Your task to perform on an android device: Add macbook to the cart on amazon, then select checkout. Image 0: 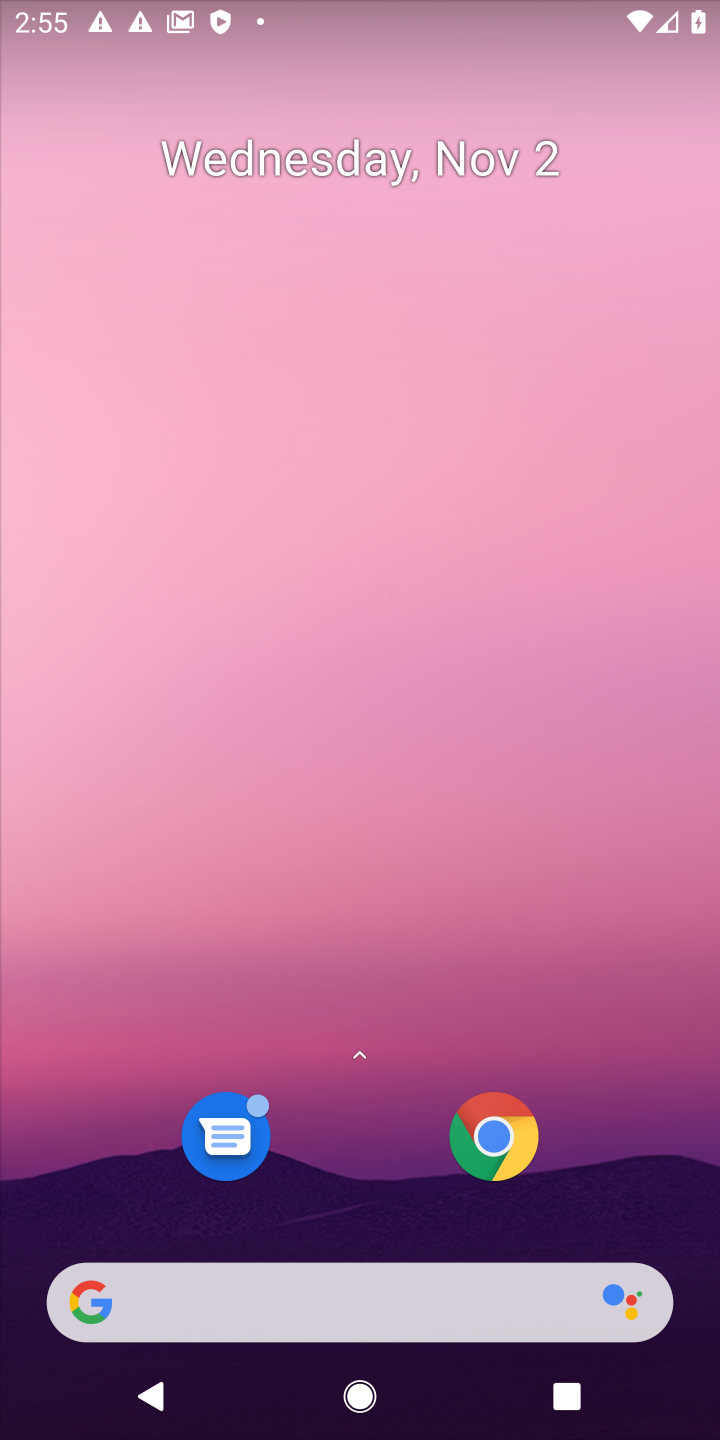
Step 0: press home button
Your task to perform on an android device: Add macbook to the cart on amazon, then select checkout. Image 1: 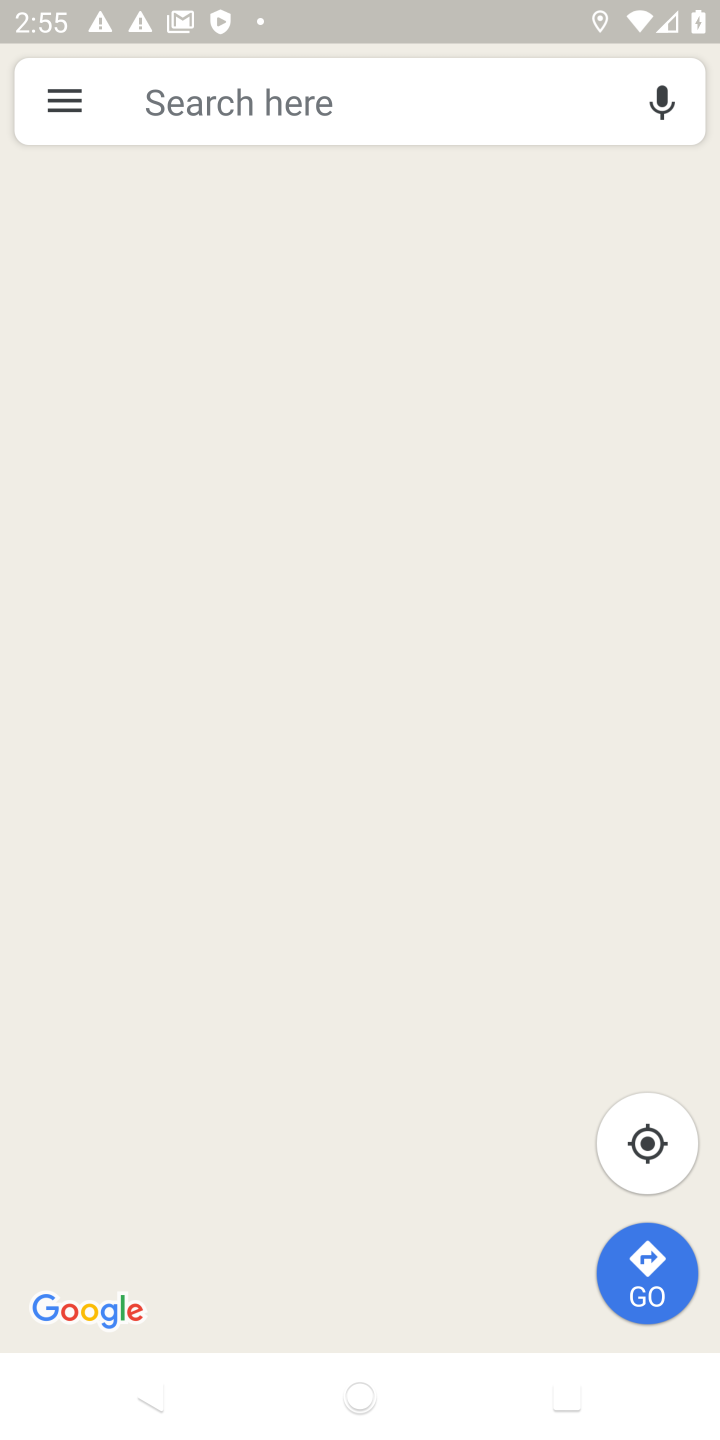
Step 1: click (434, 183)
Your task to perform on an android device: Add macbook to the cart on amazon, then select checkout. Image 2: 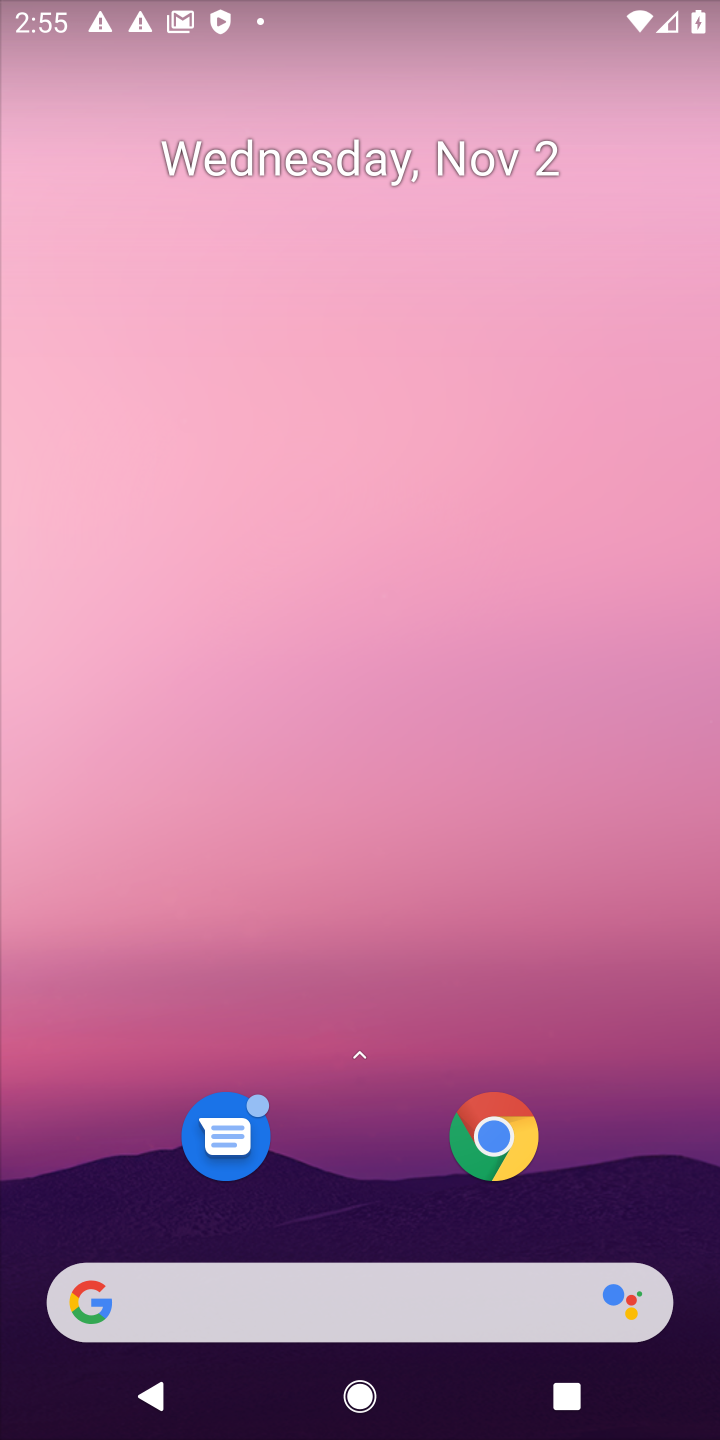
Step 2: drag from (336, 1169) to (477, 134)
Your task to perform on an android device: Add macbook to the cart on amazon, then select checkout. Image 3: 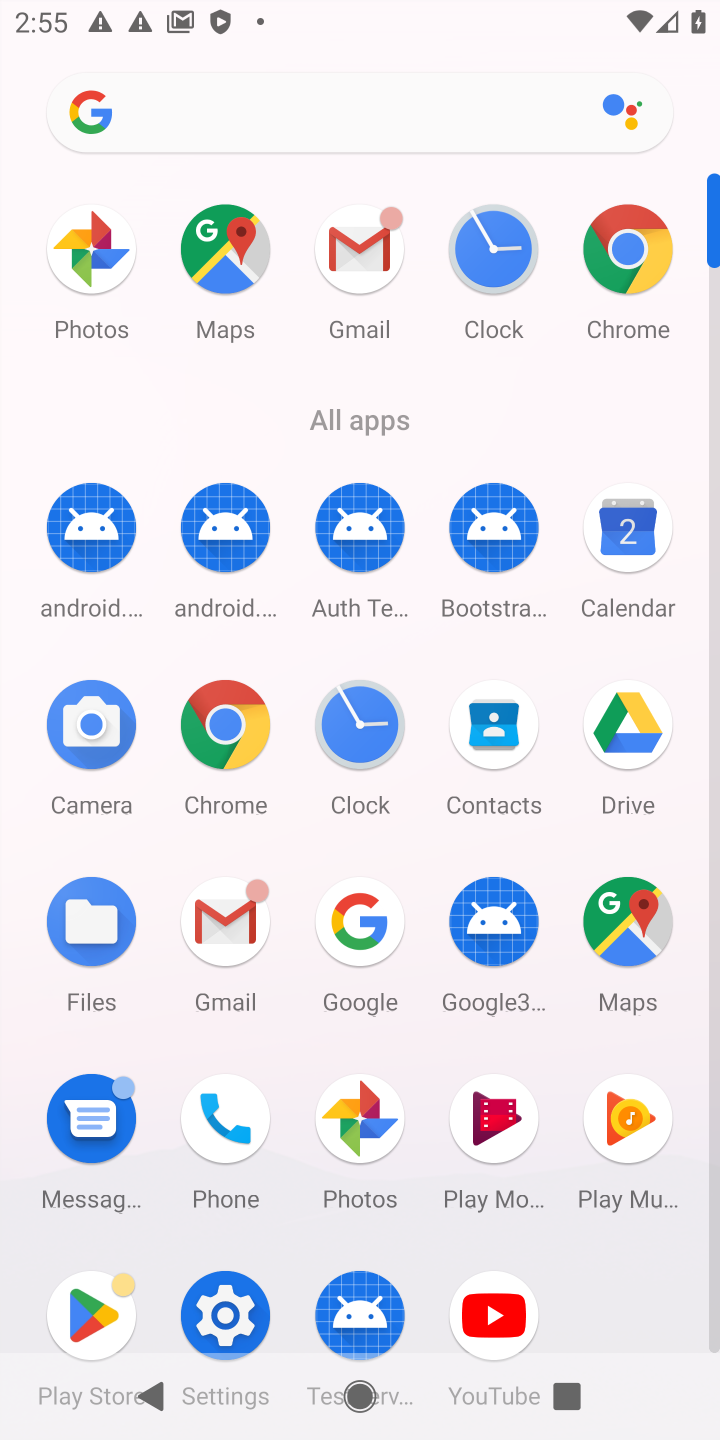
Step 3: click (219, 732)
Your task to perform on an android device: Add macbook to the cart on amazon, then select checkout. Image 4: 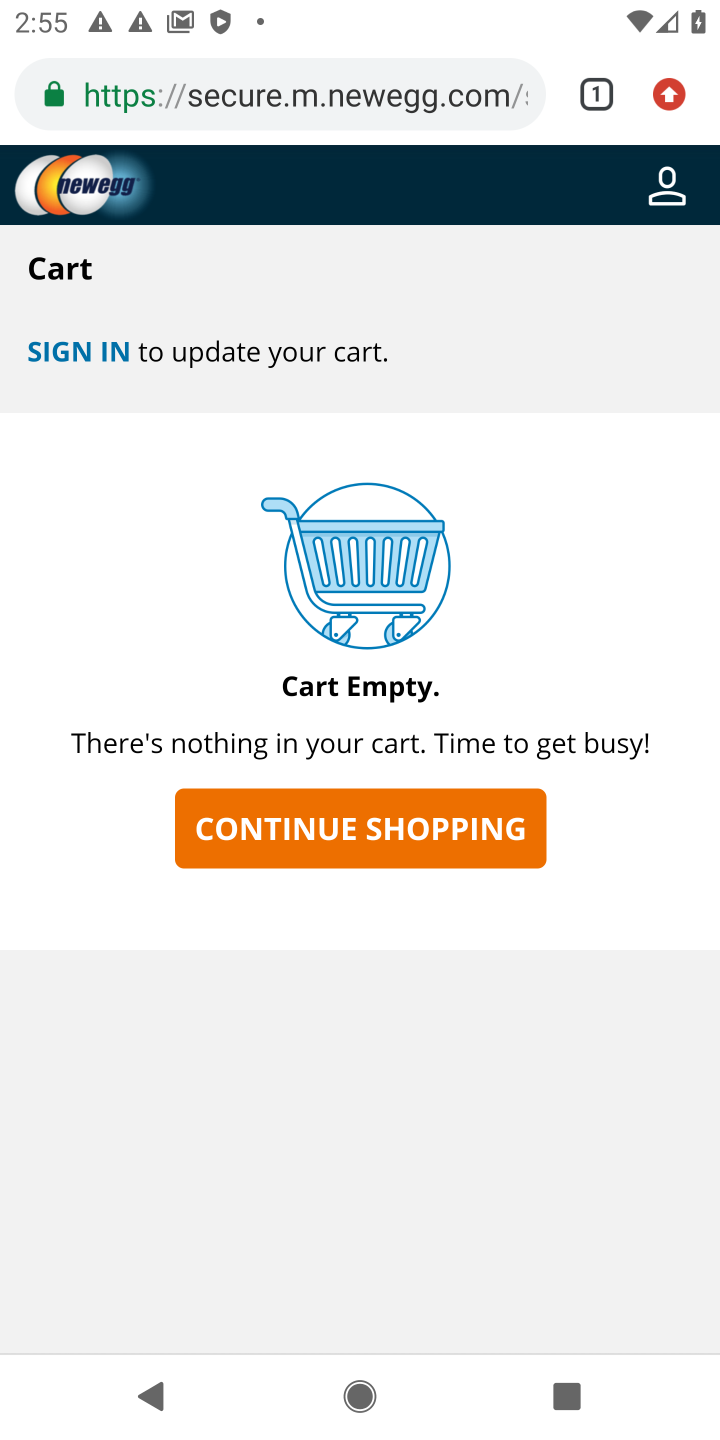
Step 4: click (390, 80)
Your task to perform on an android device: Add macbook to the cart on amazon, then select checkout. Image 5: 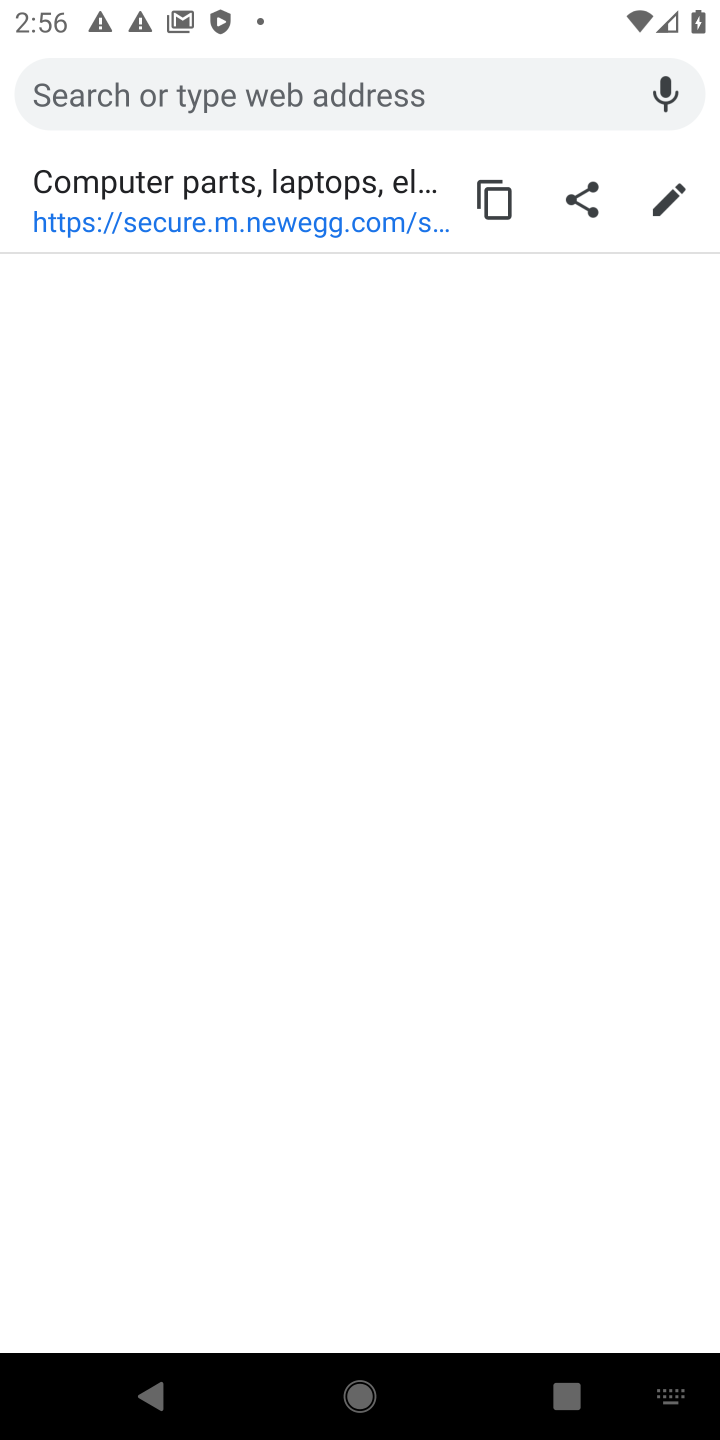
Step 5: type "amazon.com"
Your task to perform on an android device: Add macbook to the cart on amazon, then select checkout. Image 6: 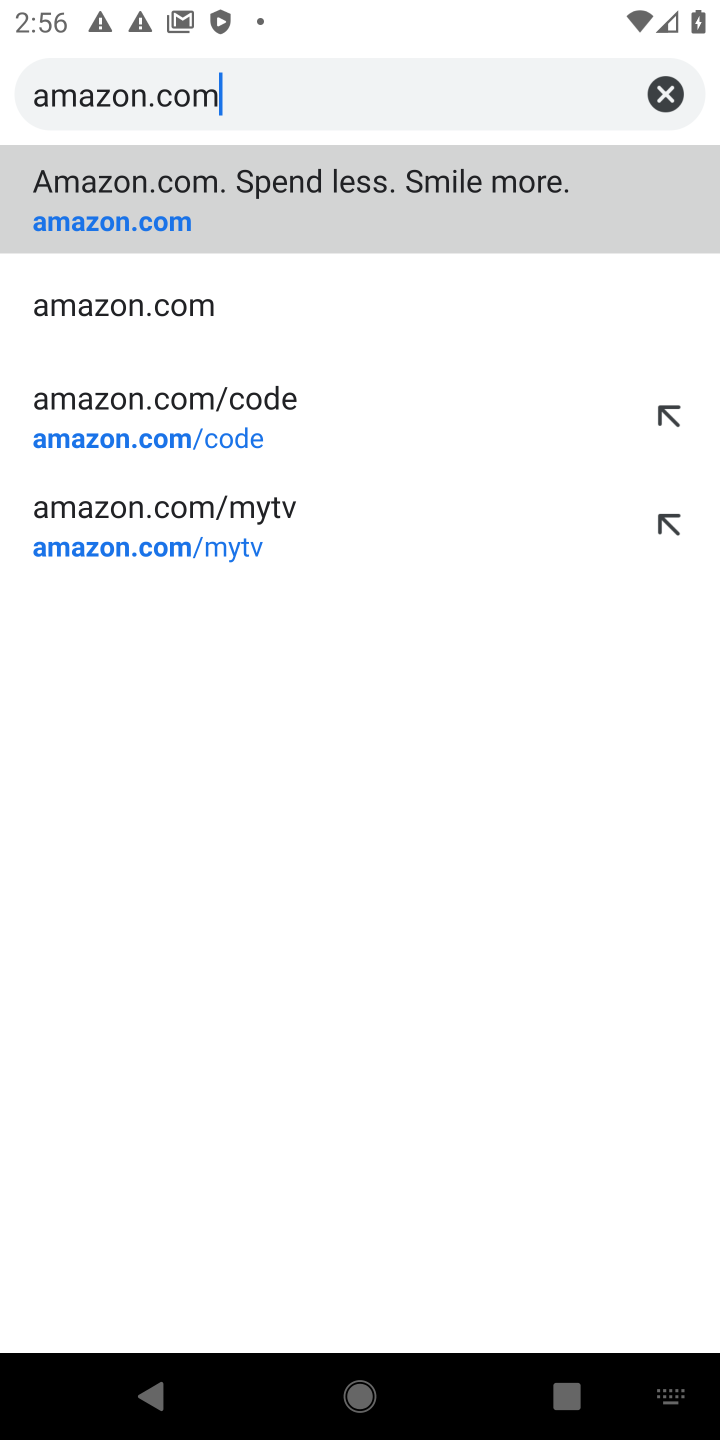
Step 6: press enter
Your task to perform on an android device: Add macbook to the cart on amazon, then select checkout. Image 7: 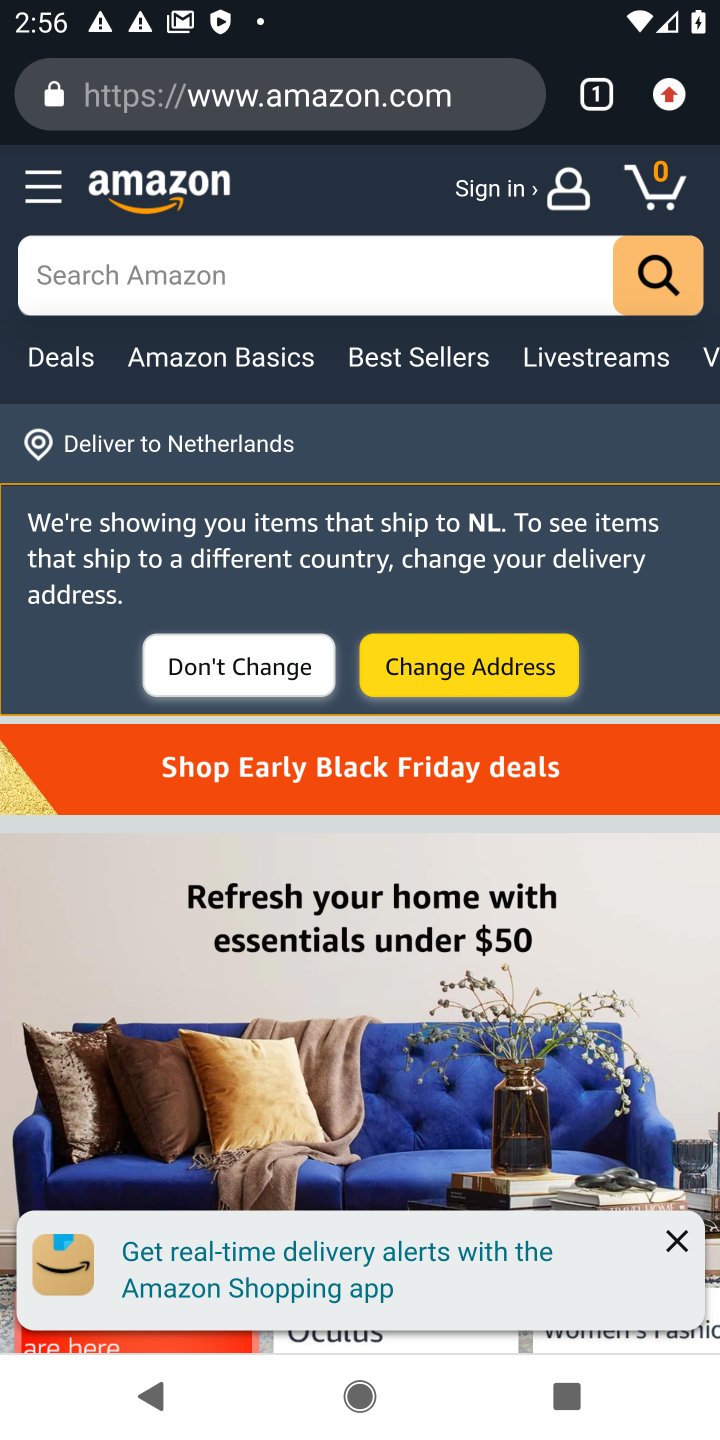
Step 7: click (301, 297)
Your task to perform on an android device: Add macbook to the cart on amazon, then select checkout. Image 8: 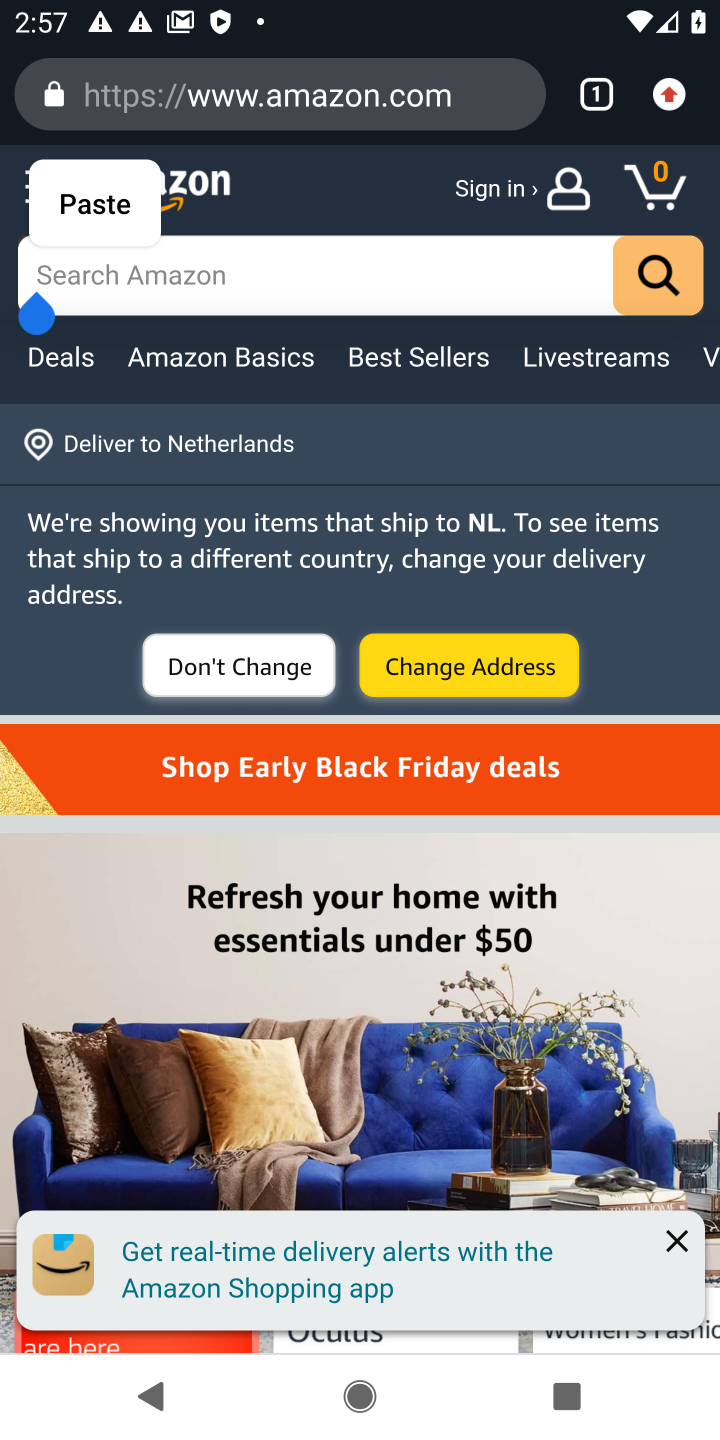
Step 8: type "macbook"
Your task to perform on an android device: Add macbook to the cart on amazon, then select checkout. Image 9: 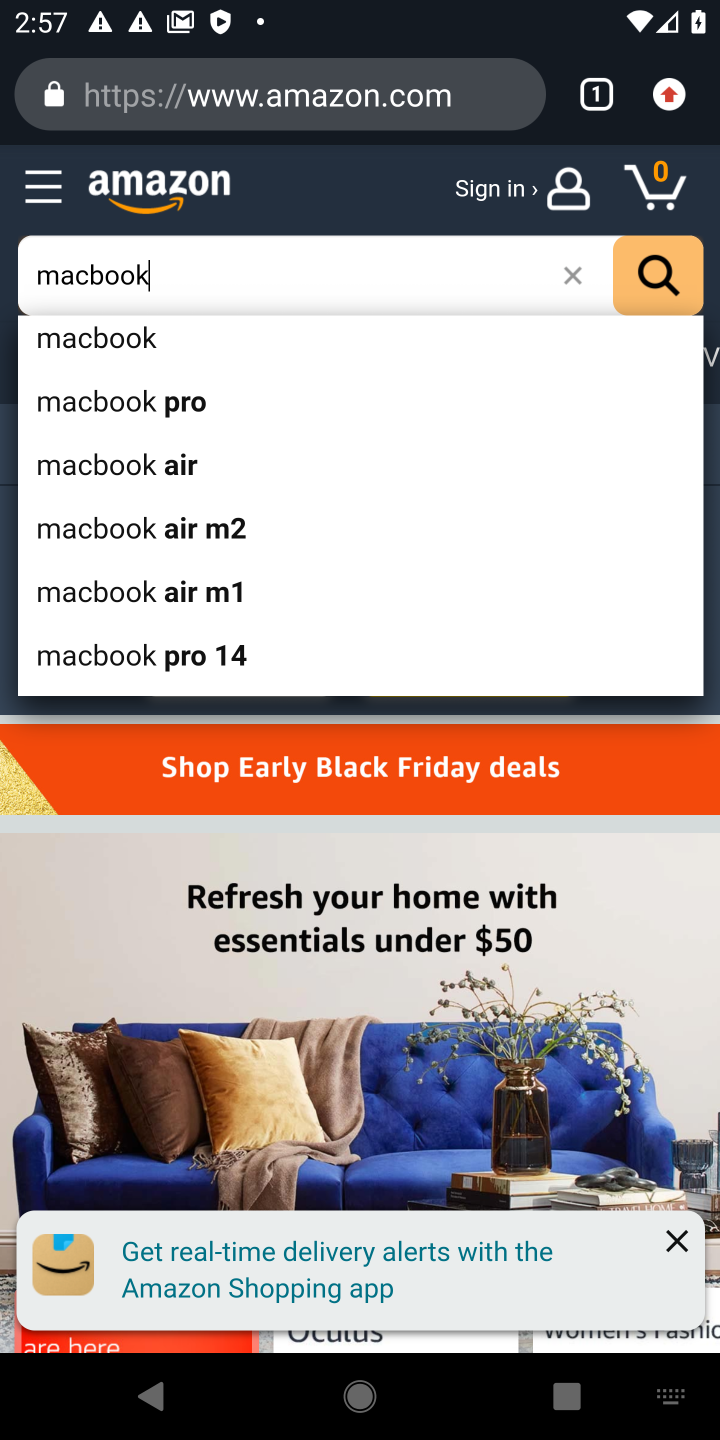
Step 9: click (682, 265)
Your task to perform on an android device: Add macbook to the cart on amazon, then select checkout. Image 10: 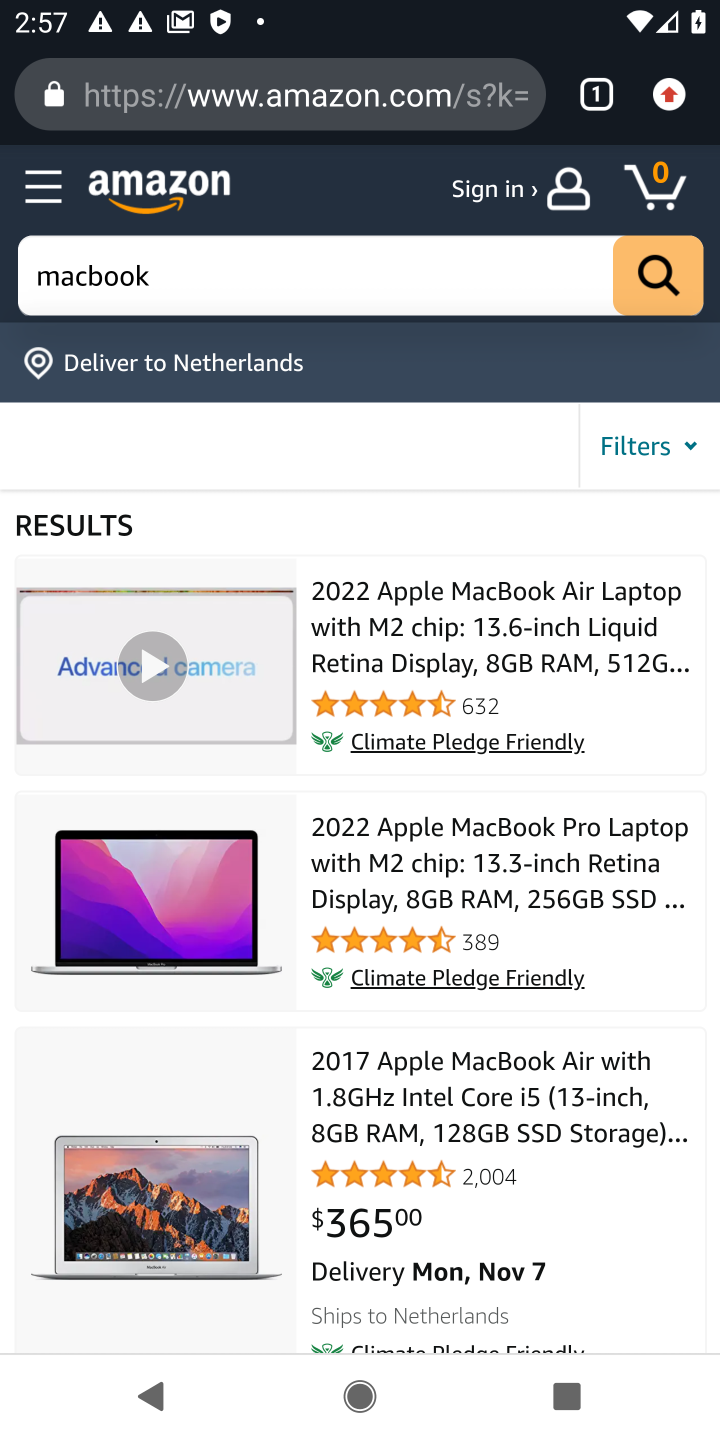
Step 10: click (433, 647)
Your task to perform on an android device: Add macbook to the cart on amazon, then select checkout. Image 11: 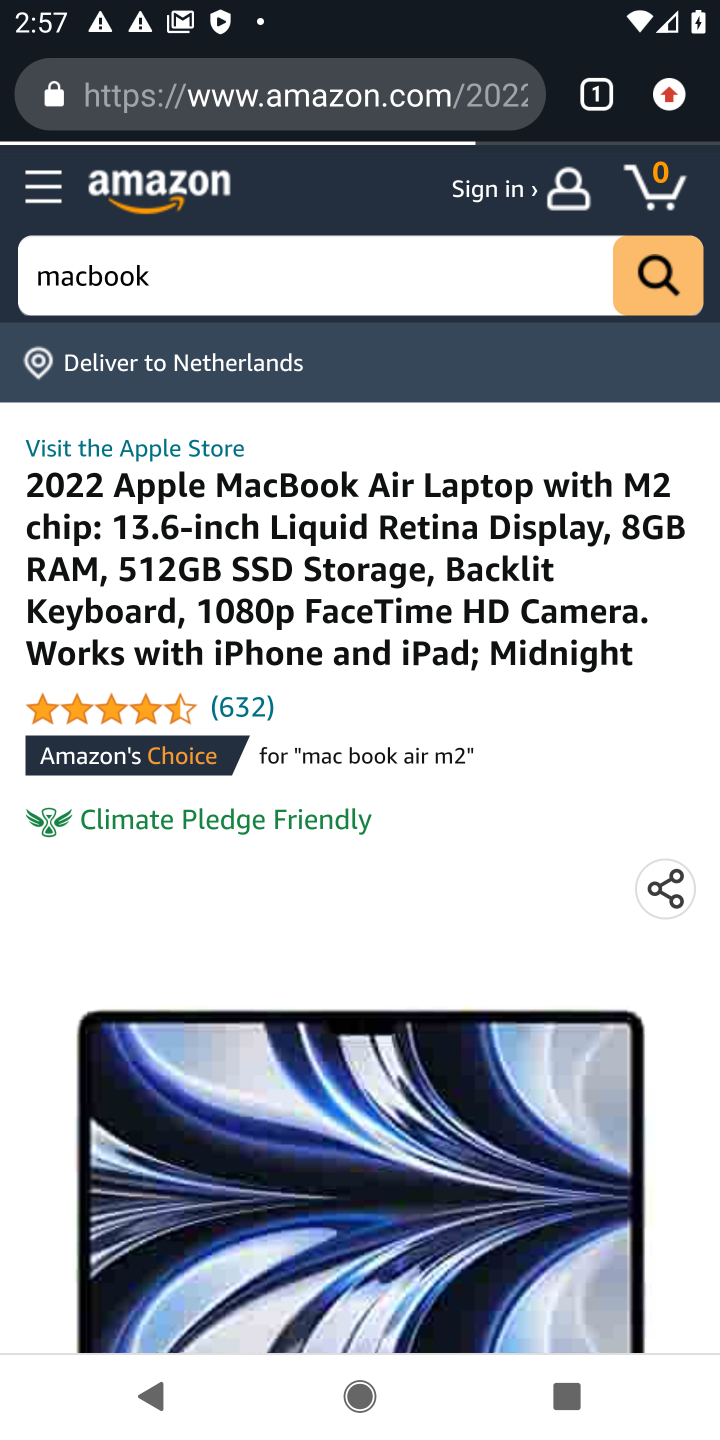
Step 11: task complete